Your task to perform on an android device: turn off priority inbox in the gmail app Image 0: 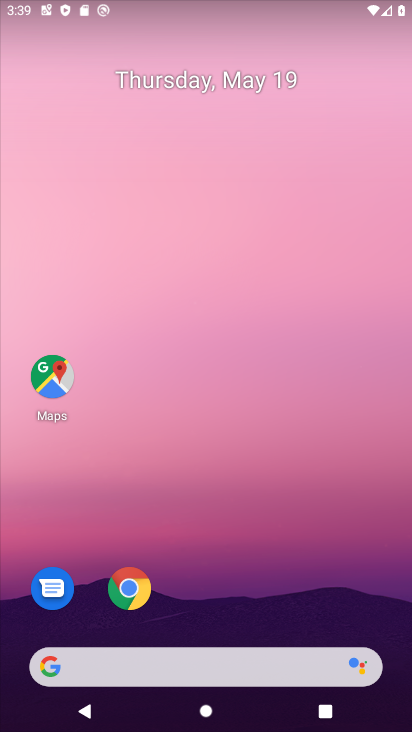
Step 0: drag from (182, 626) to (312, 11)
Your task to perform on an android device: turn off priority inbox in the gmail app Image 1: 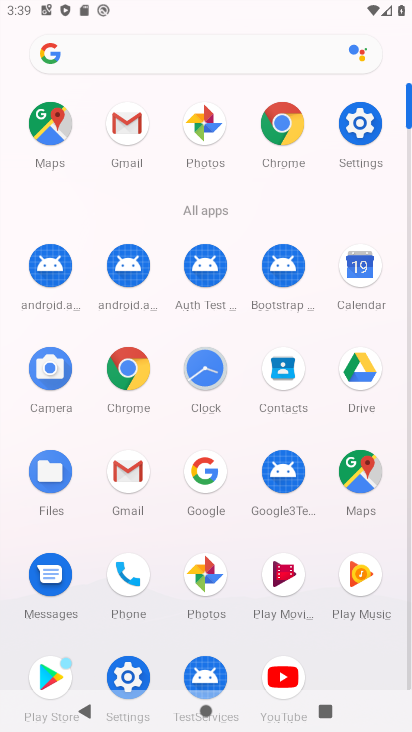
Step 1: click (128, 129)
Your task to perform on an android device: turn off priority inbox in the gmail app Image 2: 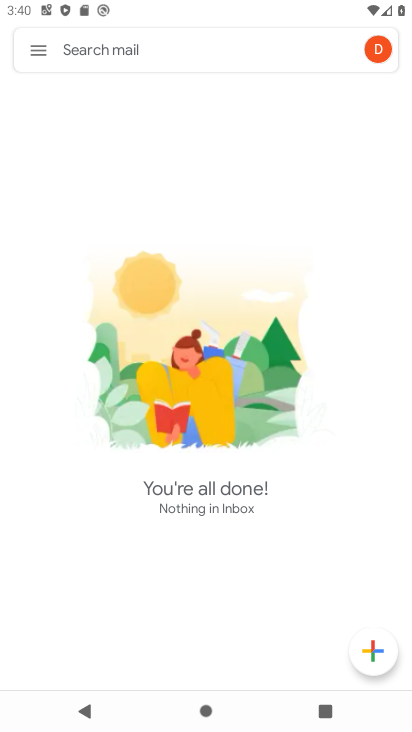
Step 2: click (44, 47)
Your task to perform on an android device: turn off priority inbox in the gmail app Image 3: 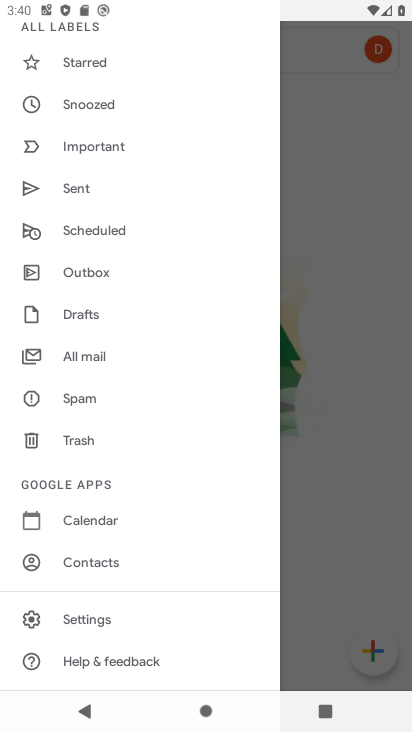
Step 3: click (123, 598)
Your task to perform on an android device: turn off priority inbox in the gmail app Image 4: 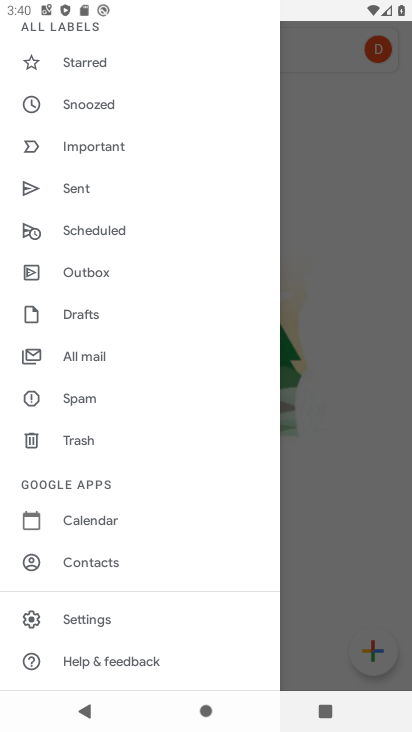
Step 4: click (118, 603)
Your task to perform on an android device: turn off priority inbox in the gmail app Image 5: 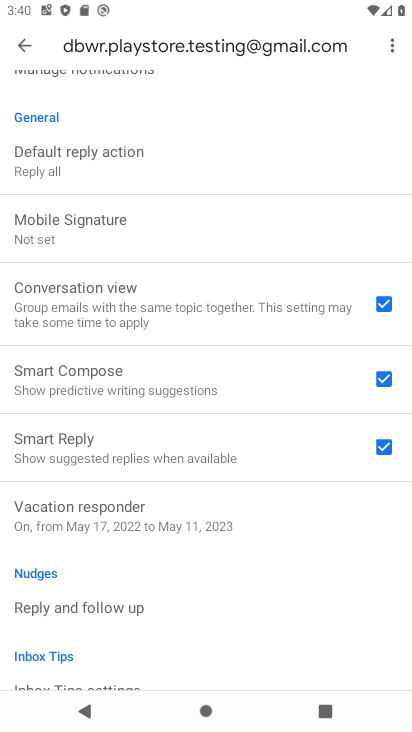
Step 5: drag from (144, 145) to (200, 569)
Your task to perform on an android device: turn off priority inbox in the gmail app Image 6: 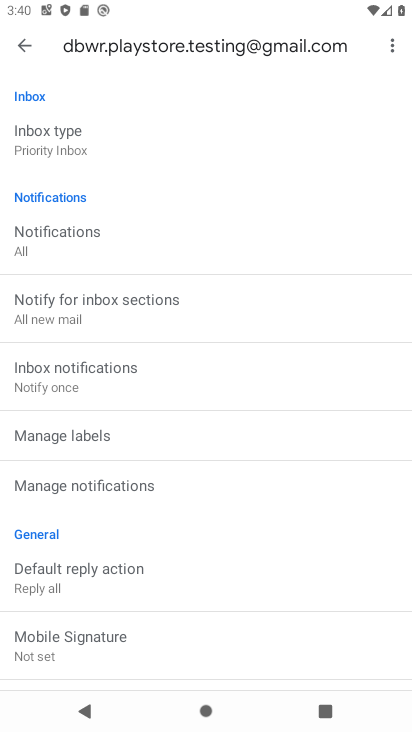
Step 6: click (70, 154)
Your task to perform on an android device: turn off priority inbox in the gmail app Image 7: 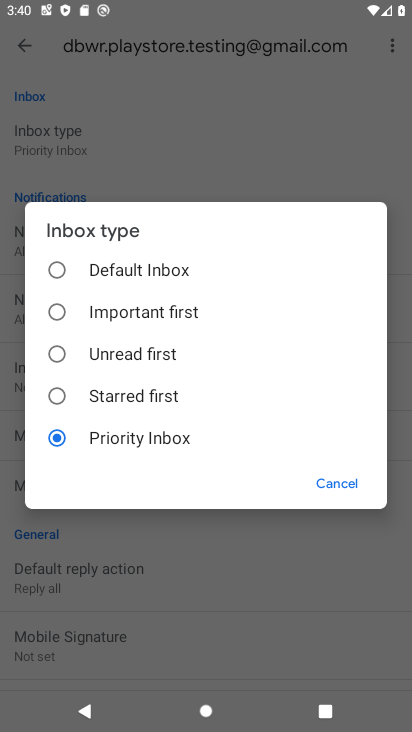
Step 7: click (148, 334)
Your task to perform on an android device: turn off priority inbox in the gmail app Image 8: 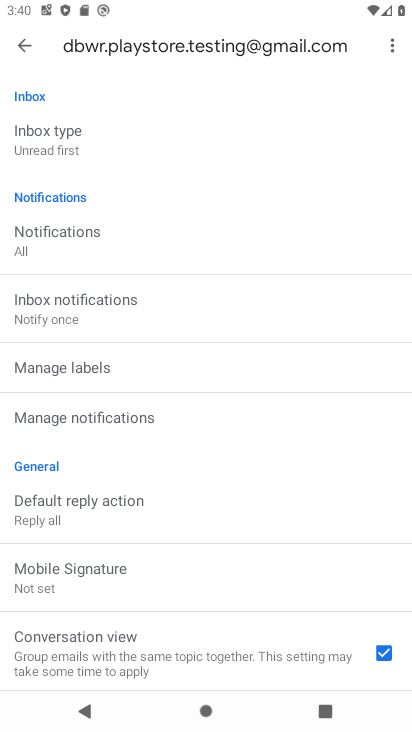
Step 8: task complete